Your task to perform on an android device: check the backup settings in the google photos Image 0: 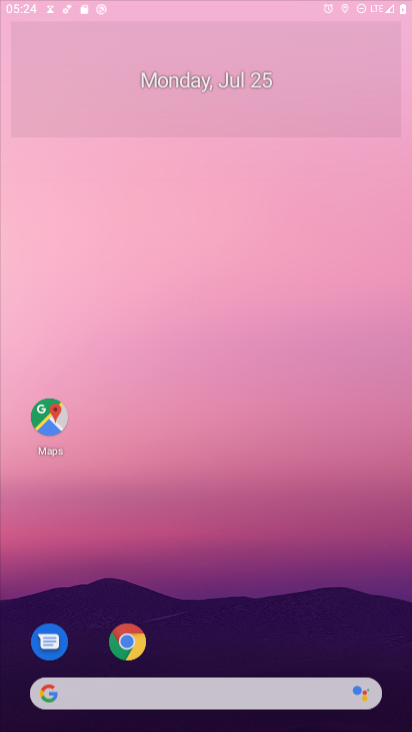
Step 0: press home button
Your task to perform on an android device: check the backup settings in the google photos Image 1: 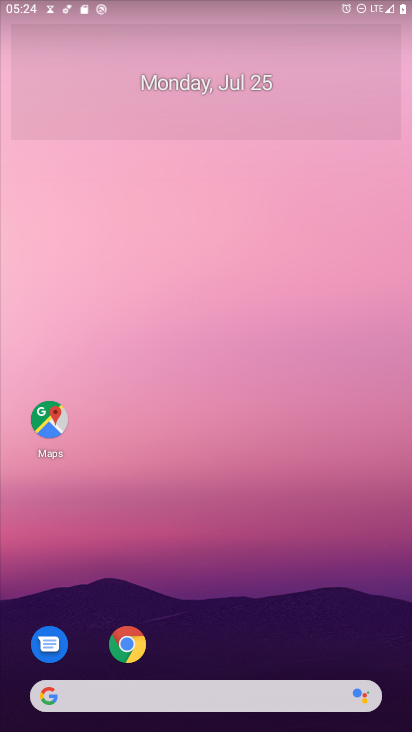
Step 1: drag from (222, 648) to (204, 149)
Your task to perform on an android device: check the backup settings in the google photos Image 2: 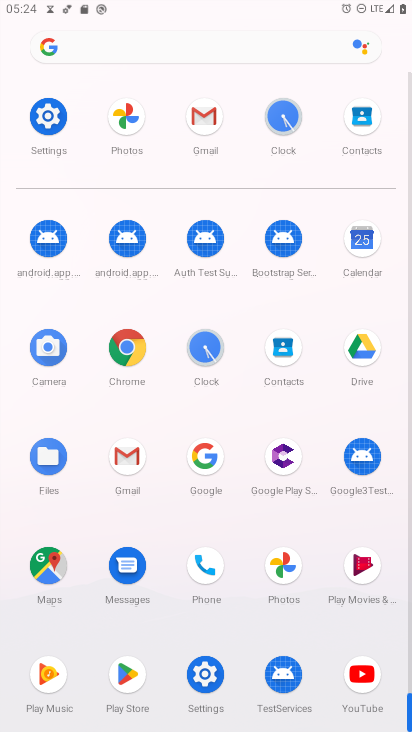
Step 2: click (283, 564)
Your task to perform on an android device: check the backup settings in the google photos Image 3: 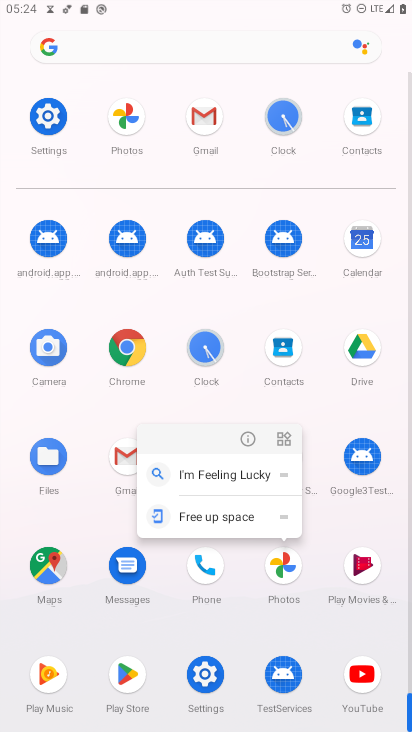
Step 3: click (278, 573)
Your task to perform on an android device: check the backup settings in the google photos Image 4: 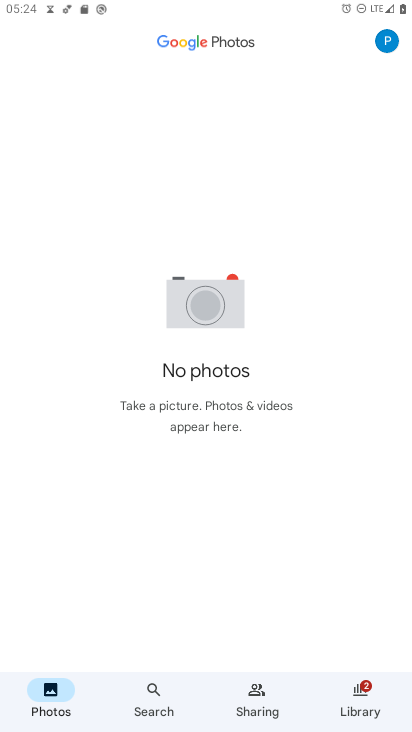
Step 4: click (390, 41)
Your task to perform on an android device: check the backup settings in the google photos Image 5: 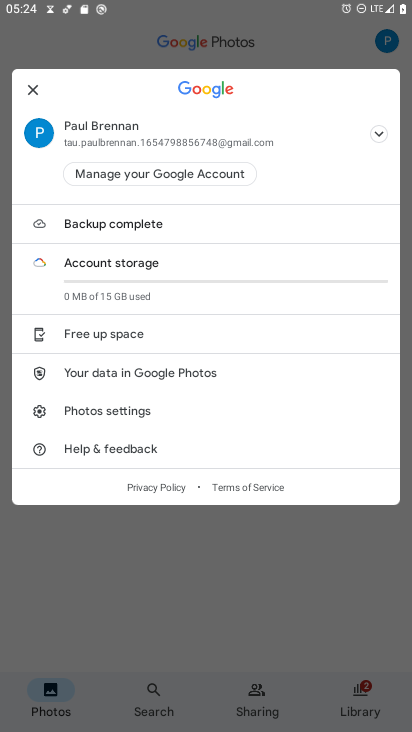
Step 5: click (187, 136)
Your task to perform on an android device: check the backup settings in the google photos Image 6: 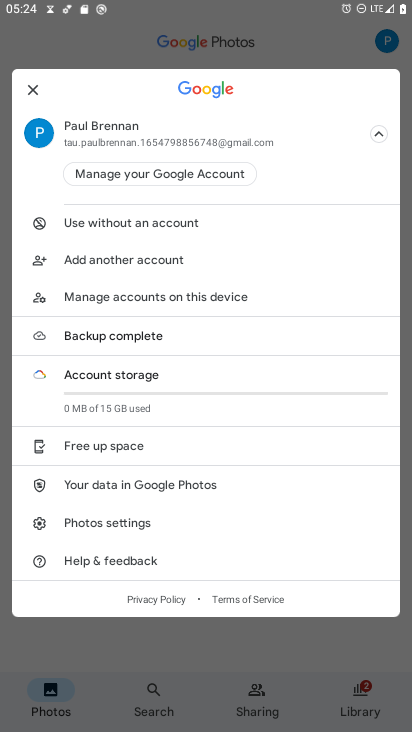
Step 6: click (135, 137)
Your task to perform on an android device: check the backup settings in the google photos Image 7: 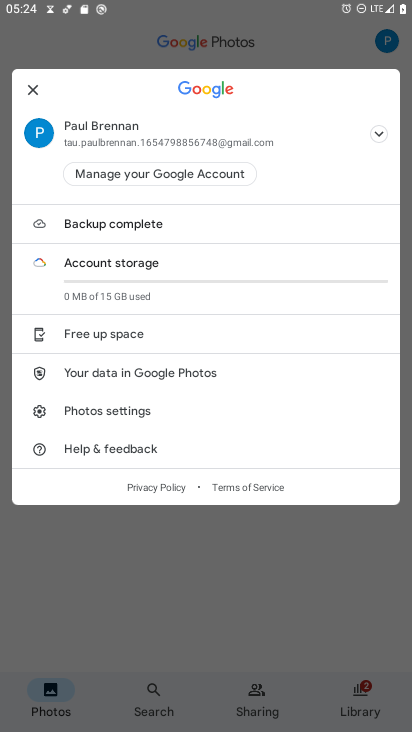
Step 7: click (135, 138)
Your task to perform on an android device: check the backup settings in the google photos Image 8: 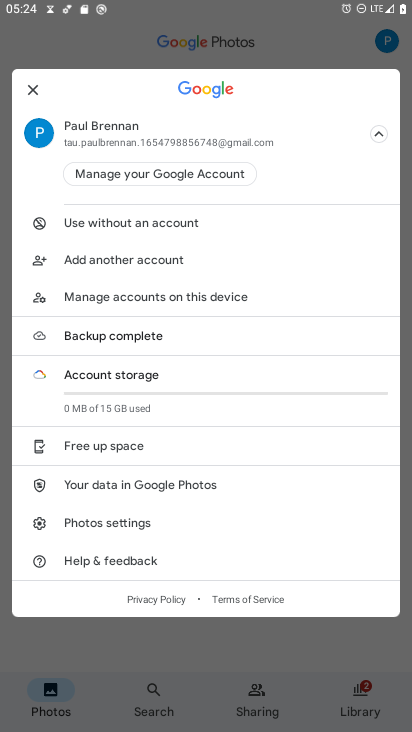
Step 8: click (110, 522)
Your task to perform on an android device: check the backup settings in the google photos Image 9: 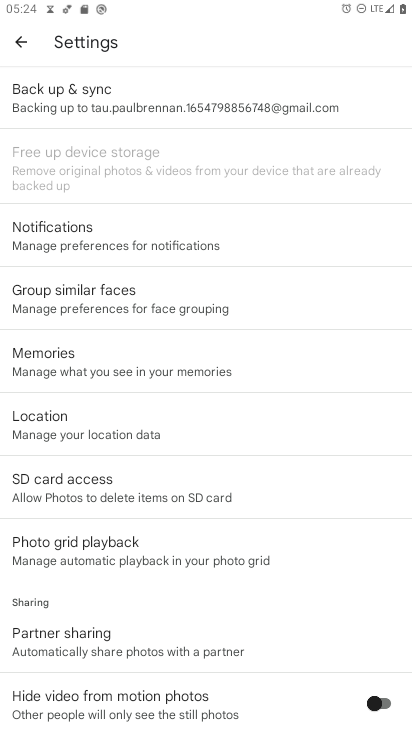
Step 9: click (141, 100)
Your task to perform on an android device: check the backup settings in the google photos Image 10: 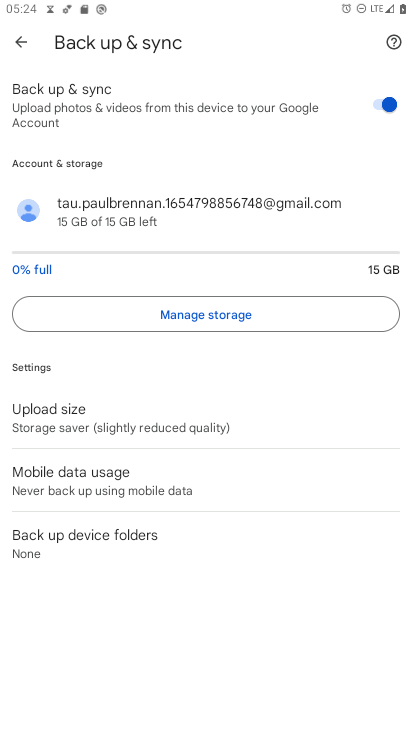
Step 10: task complete